Your task to perform on an android device: Open the stopwatch Image 0: 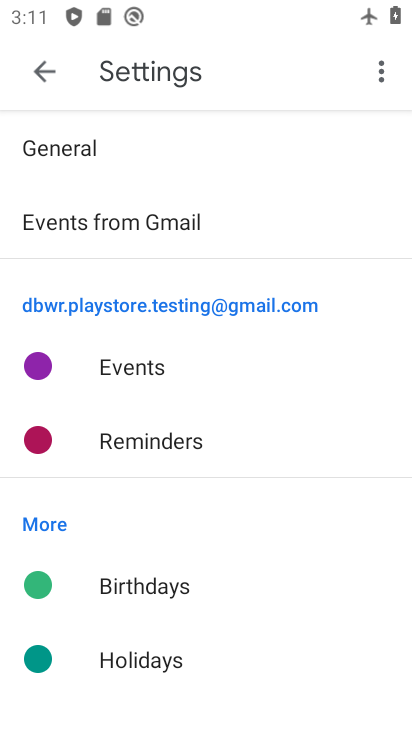
Step 0: press home button
Your task to perform on an android device: Open the stopwatch Image 1: 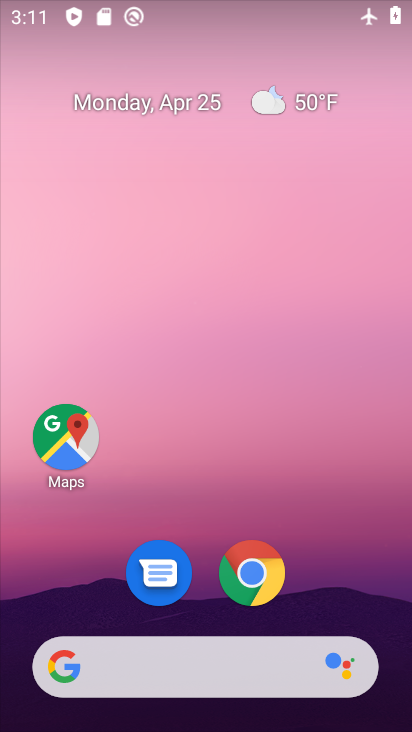
Step 1: drag from (336, 544) to (288, 3)
Your task to perform on an android device: Open the stopwatch Image 2: 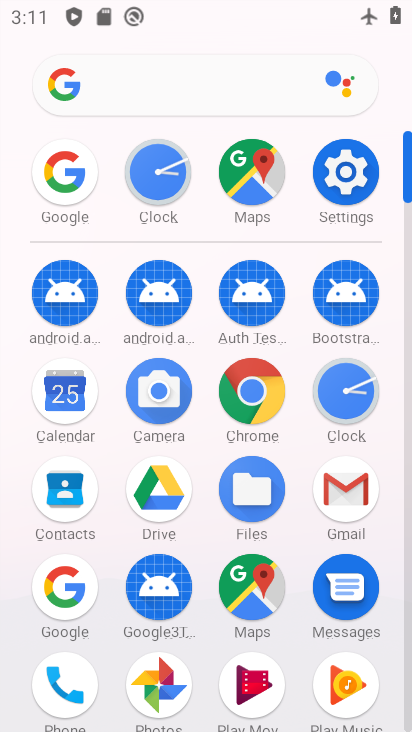
Step 2: click (348, 388)
Your task to perform on an android device: Open the stopwatch Image 3: 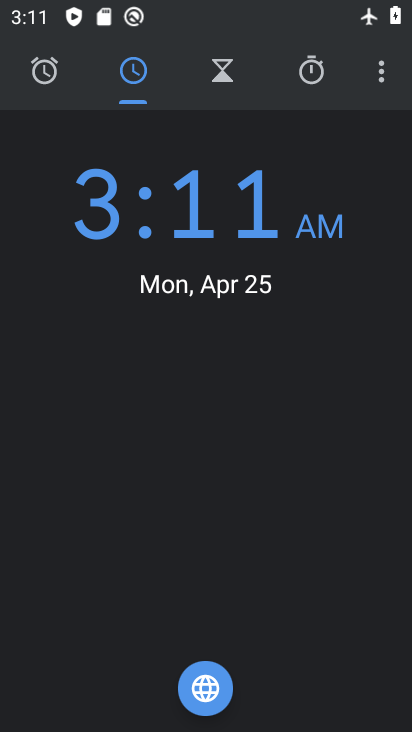
Step 3: click (382, 75)
Your task to perform on an android device: Open the stopwatch Image 4: 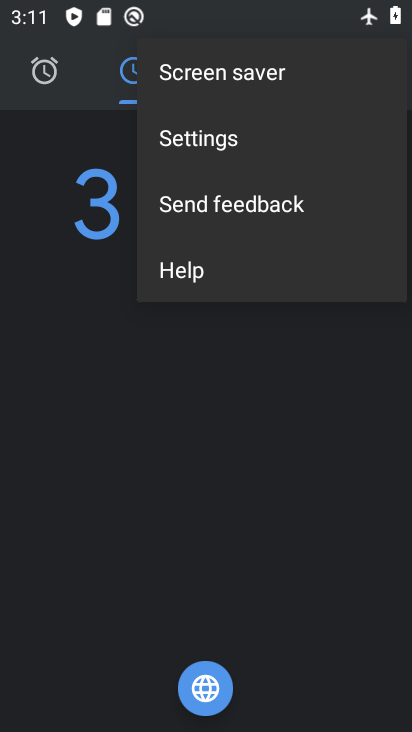
Step 4: click (213, 142)
Your task to perform on an android device: Open the stopwatch Image 5: 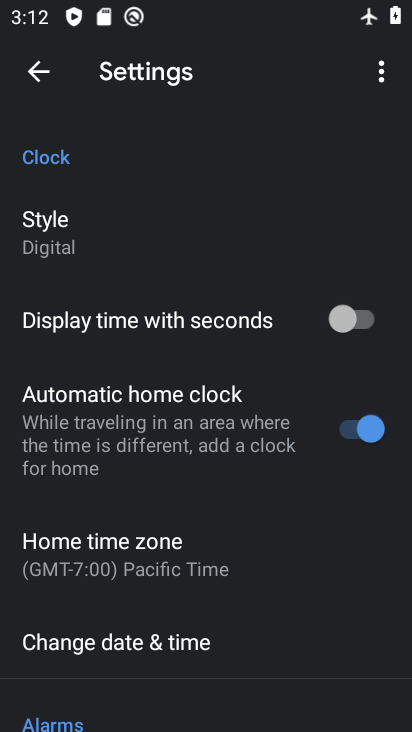
Step 5: click (28, 89)
Your task to perform on an android device: Open the stopwatch Image 6: 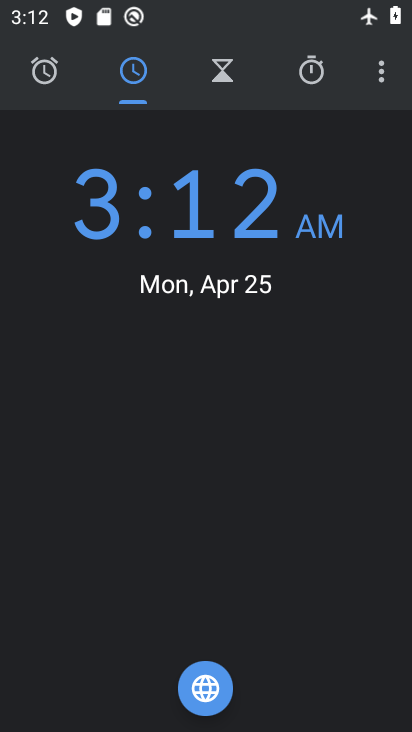
Step 6: click (323, 83)
Your task to perform on an android device: Open the stopwatch Image 7: 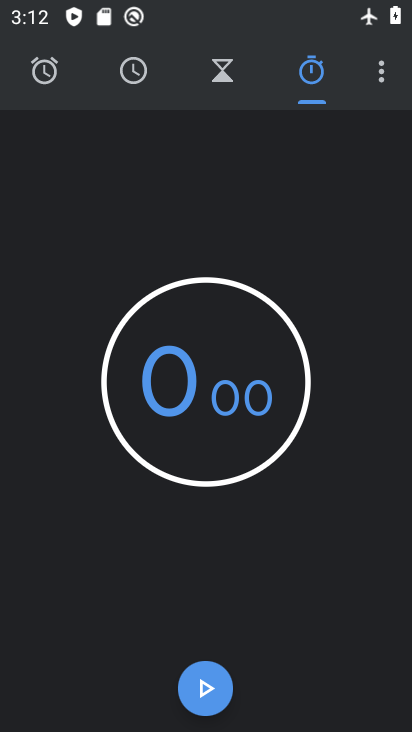
Step 7: click (213, 419)
Your task to perform on an android device: Open the stopwatch Image 8: 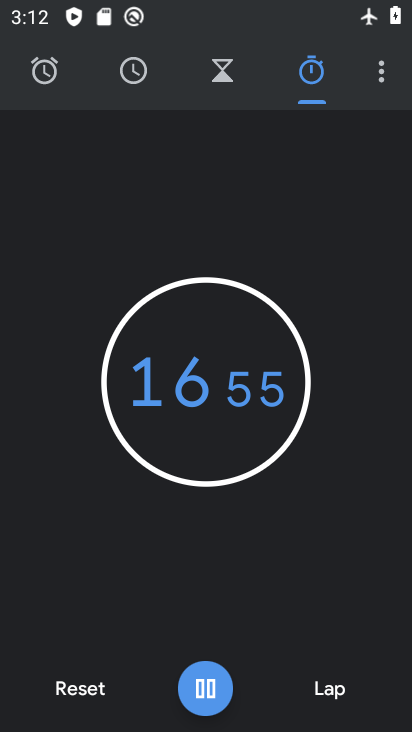
Step 8: task complete